Your task to perform on an android device: Go to sound settings Image 0: 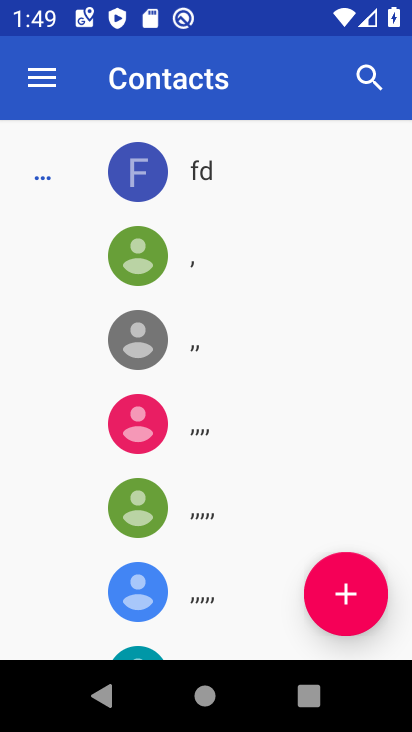
Step 0: press home button
Your task to perform on an android device: Go to sound settings Image 1: 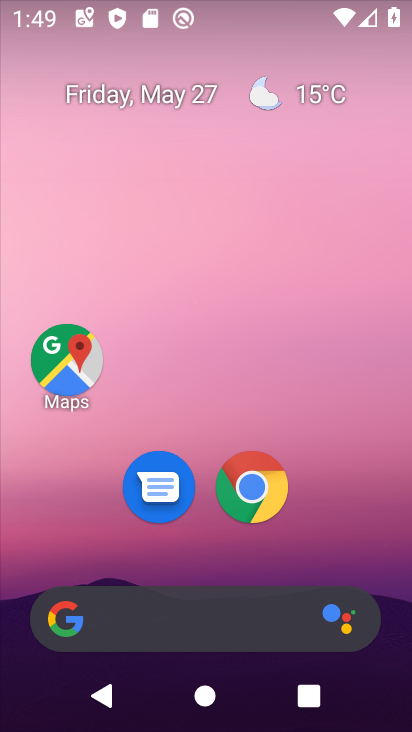
Step 1: drag from (230, 561) to (187, 68)
Your task to perform on an android device: Go to sound settings Image 2: 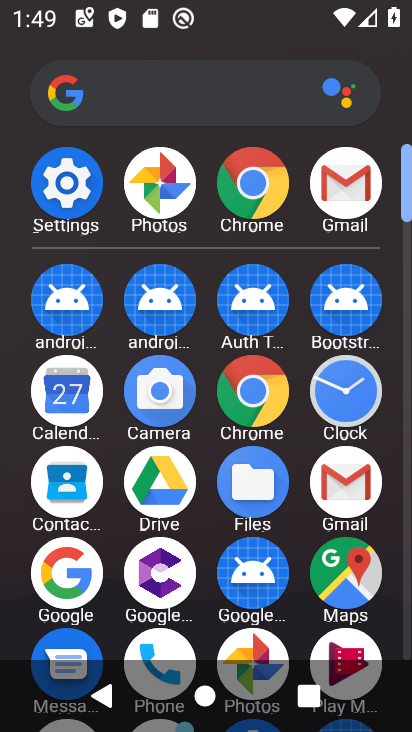
Step 2: click (64, 182)
Your task to perform on an android device: Go to sound settings Image 3: 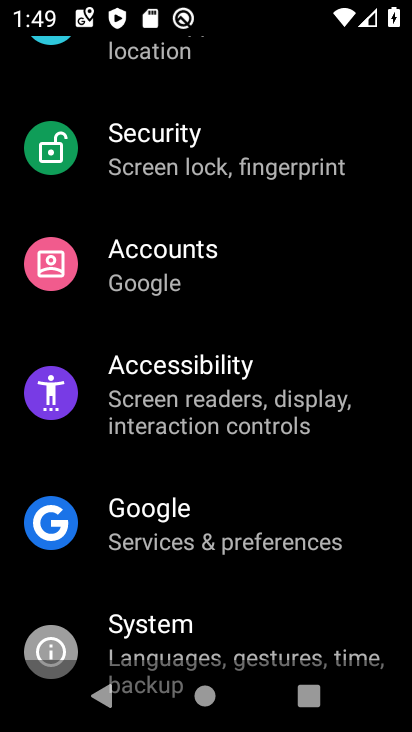
Step 3: drag from (276, 214) to (284, 516)
Your task to perform on an android device: Go to sound settings Image 4: 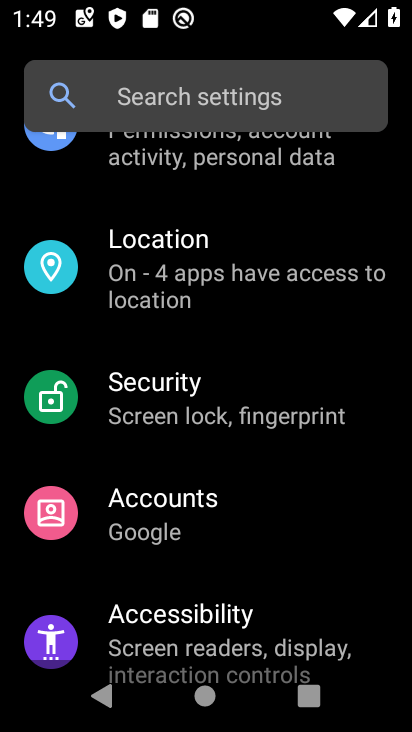
Step 4: drag from (186, 431) to (173, 728)
Your task to perform on an android device: Go to sound settings Image 5: 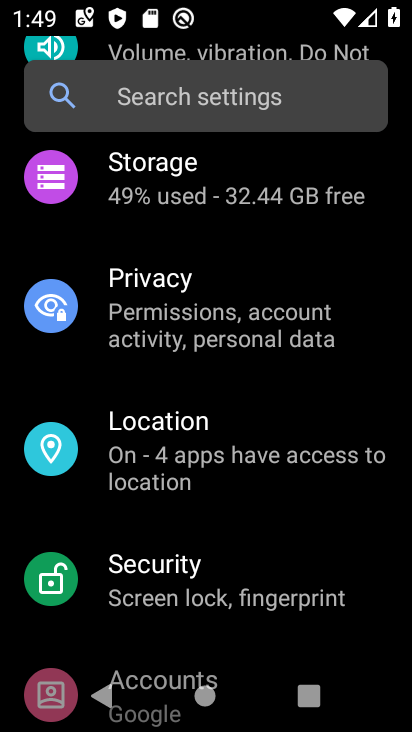
Step 5: drag from (216, 259) to (172, 663)
Your task to perform on an android device: Go to sound settings Image 6: 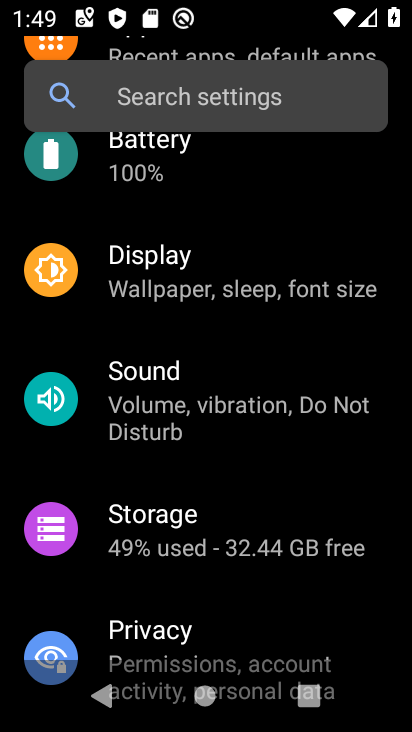
Step 6: click (271, 433)
Your task to perform on an android device: Go to sound settings Image 7: 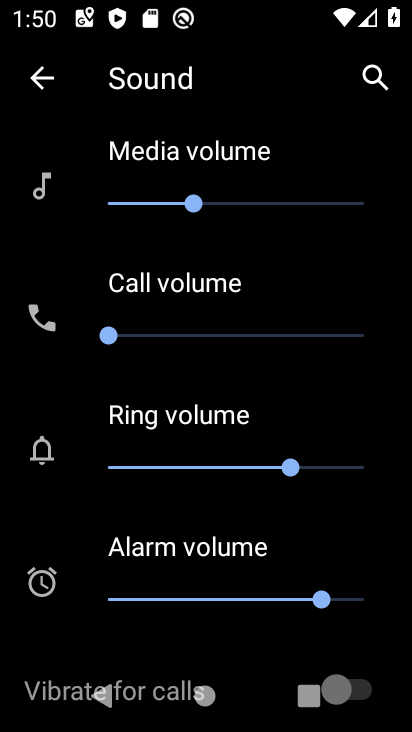
Step 7: task complete